Your task to perform on an android device: change the clock display to show seconds Image 0: 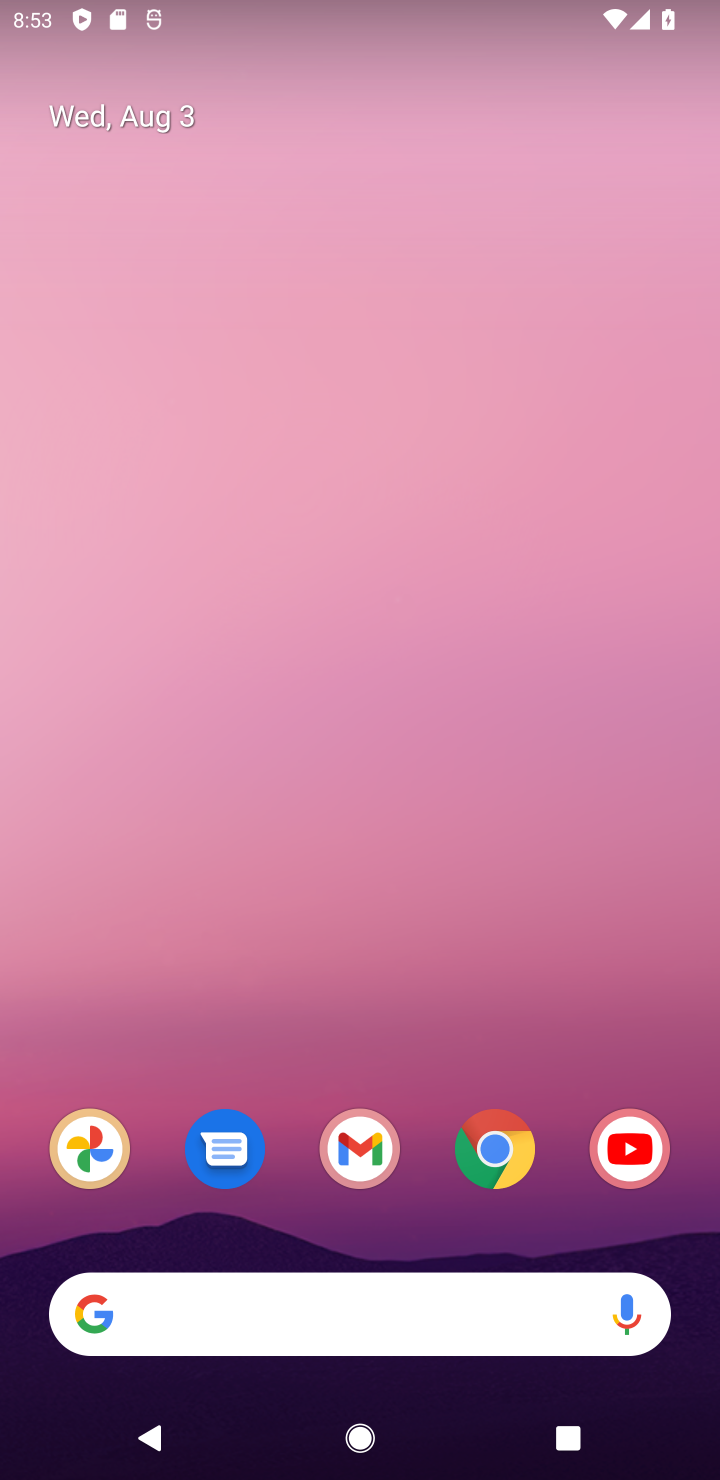
Step 0: drag from (418, 1073) to (332, 18)
Your task to perform on an android device: change the clock display to show seconds Image 1: 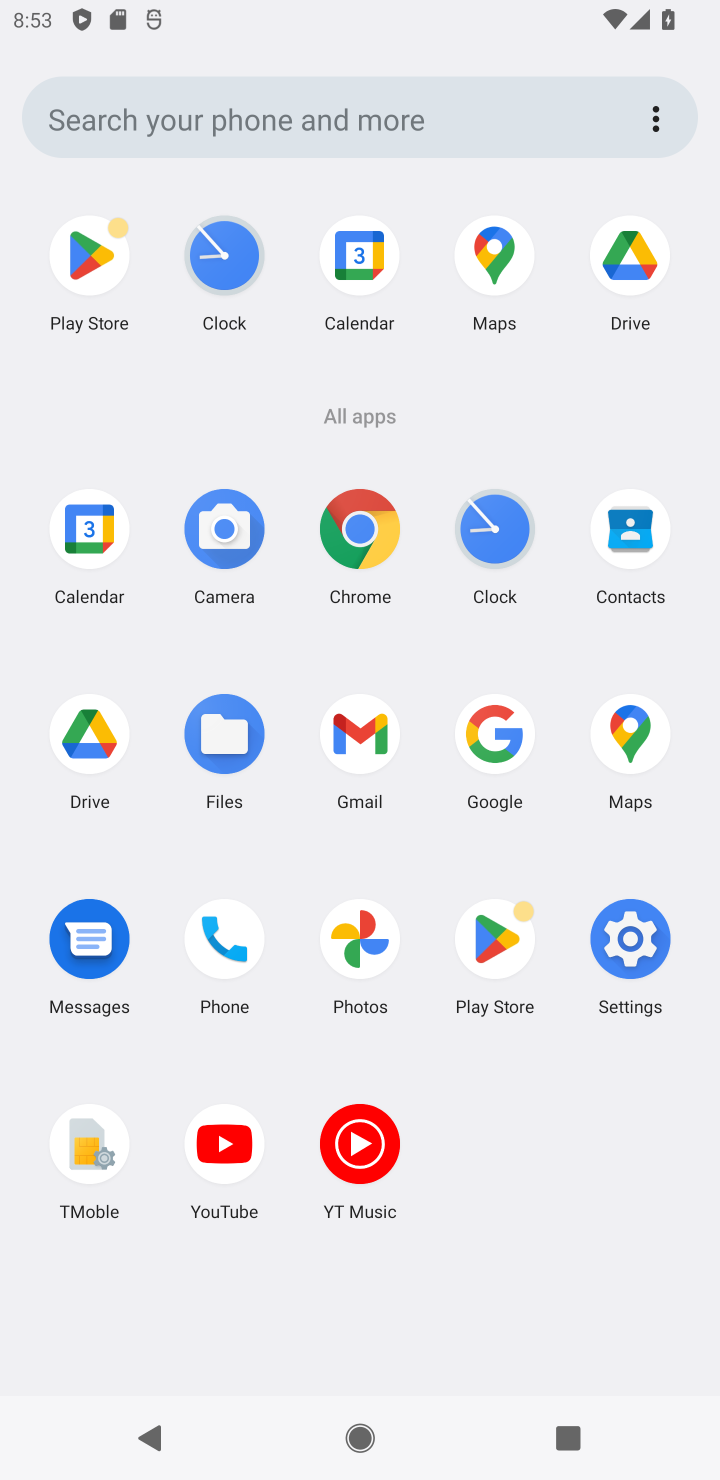
Step 1: click (482, 529)
Your task to perform on an android device: change the clock display to show seconds Image 2: 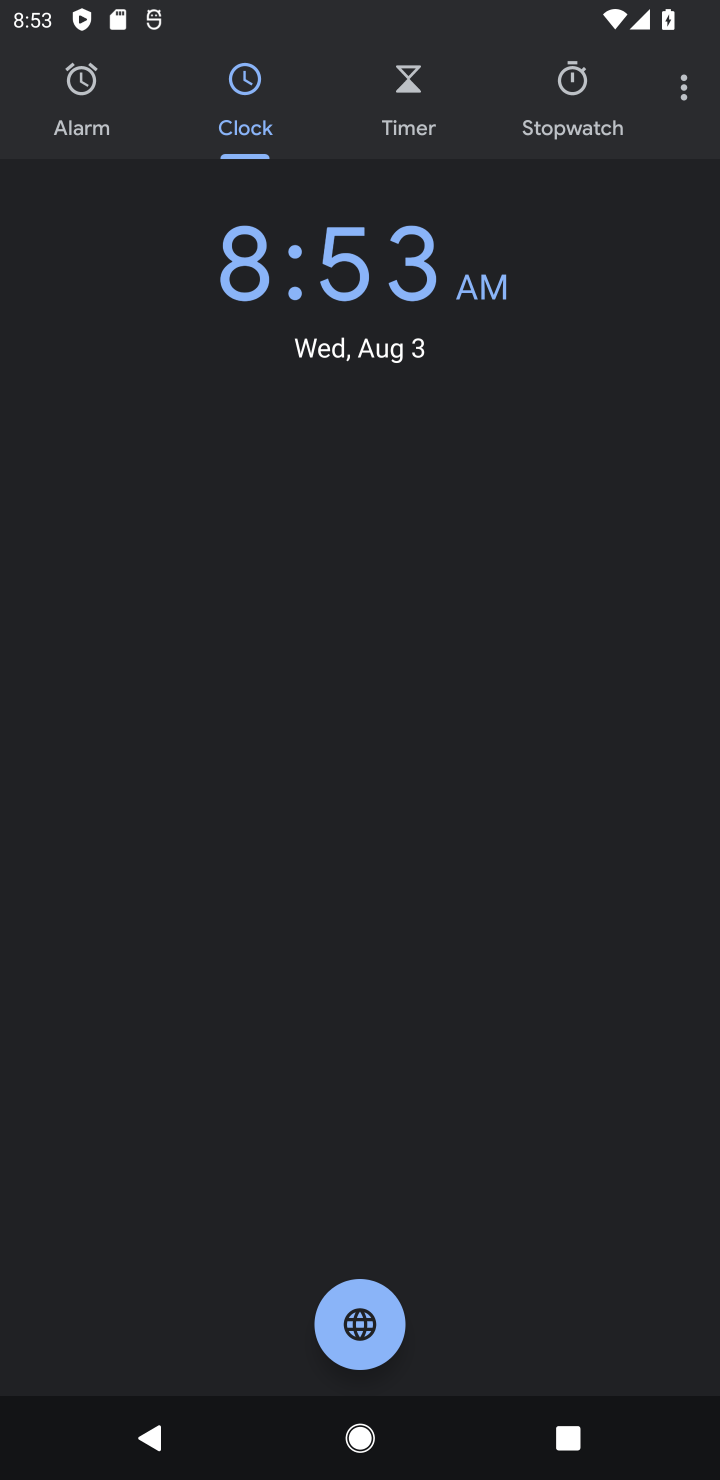
Step 2: click (661, 78)
Your task to perform on an android device: change the clock display to show seconds Image 3: 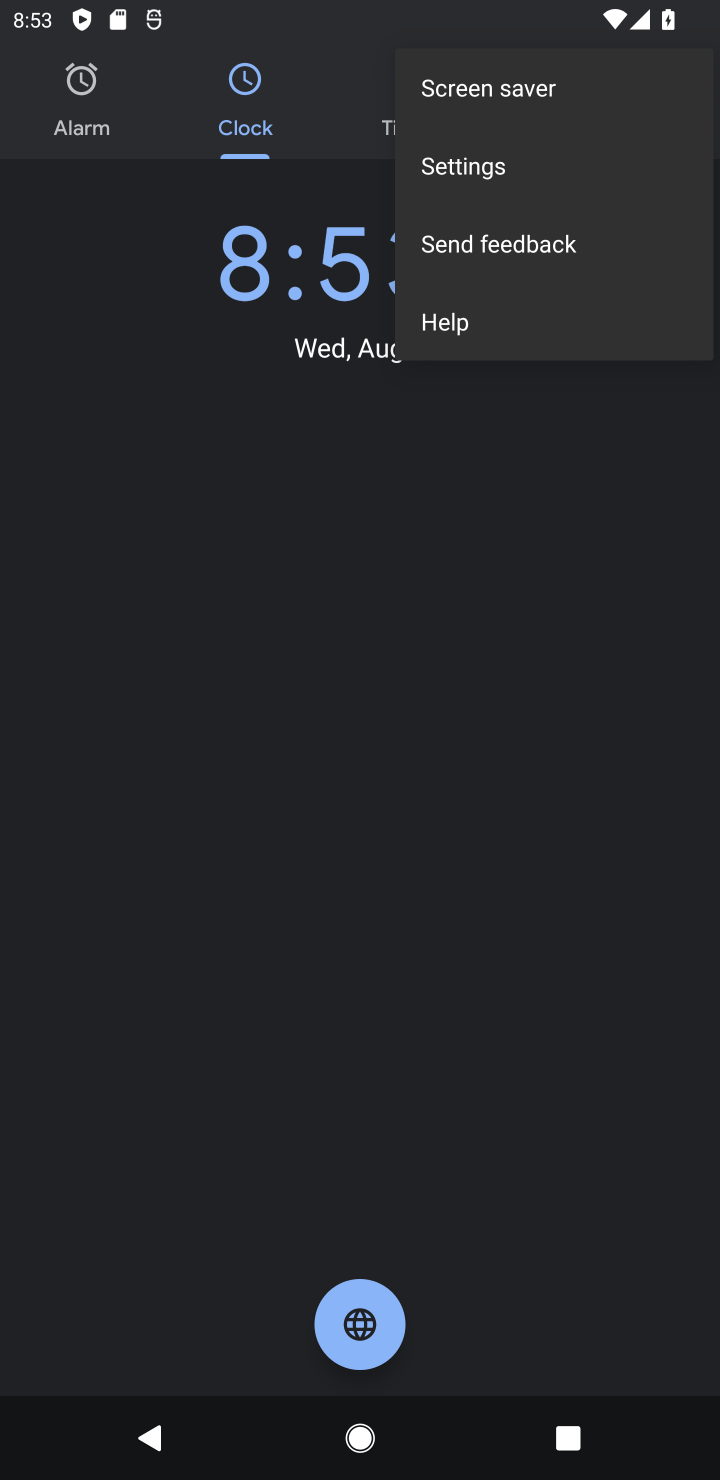
Step 3: click (518, 166)
Your task to perform on an android device: change the clock display to show seconds Image 4: 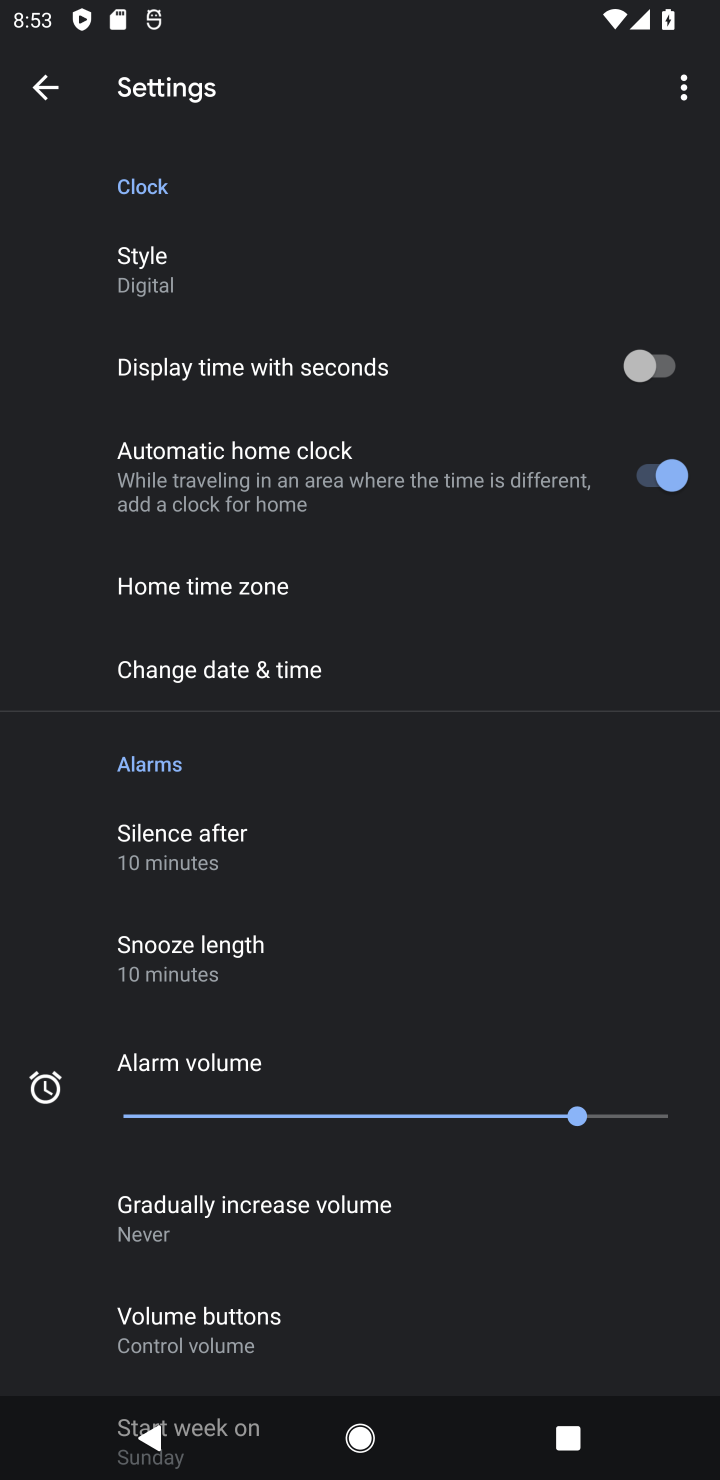
Step 4: click (647, 358)
Your task to perform on an android device: change the clock display to show seconds Image 5: 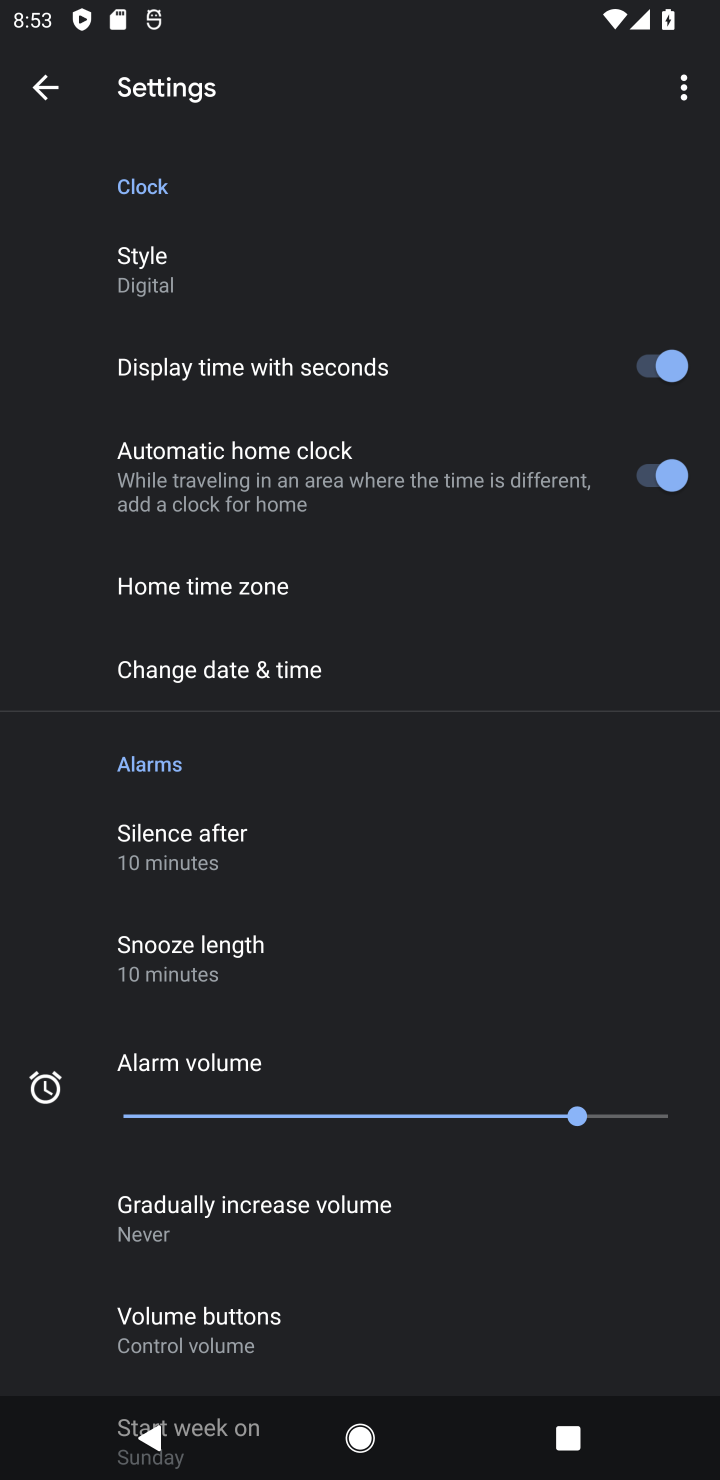
Step 5: task complete